Your task to perform on an android device: Go to CNN.com Image 0: 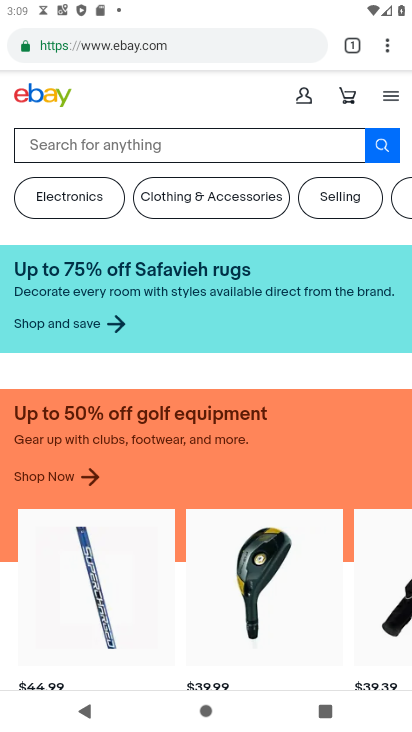
Step 0: click (240, 45)
Your task to perform on an android device: Go to CNN.com Image 1: 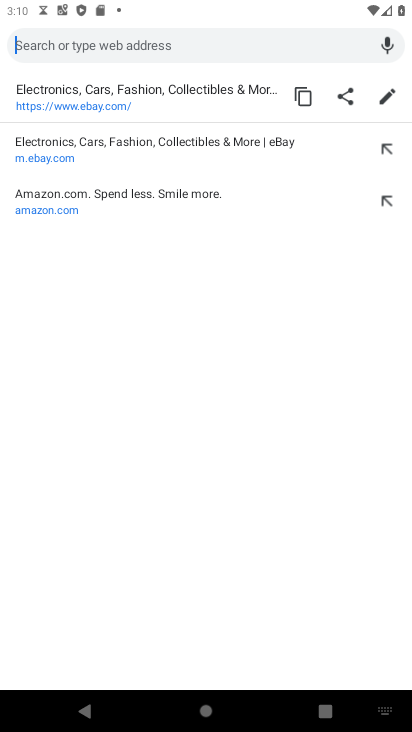
Step 1: type "CNN.com"
Your task to perform on an android device: Go to CNN.com Image 2: 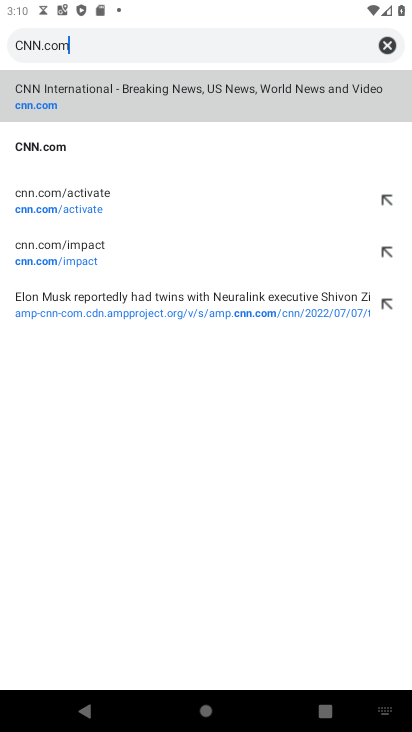
Step 2: click (30, 145)
Your task to perform on an android device: Go to CNN.com Image 3: 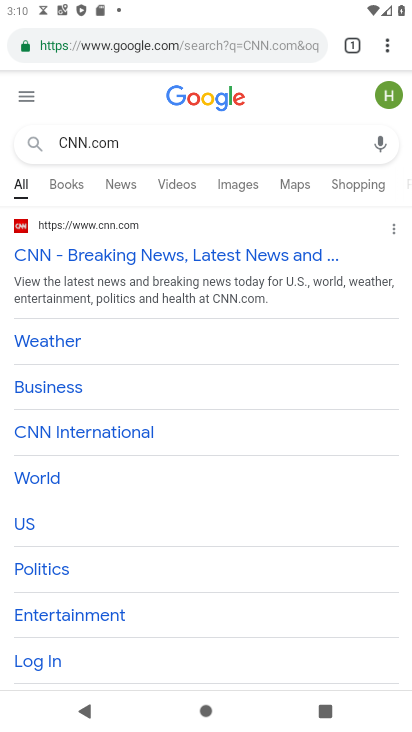
Step 3: click (124, 255)
Your task to perform on an android device: Go to CNN.com Image 4: 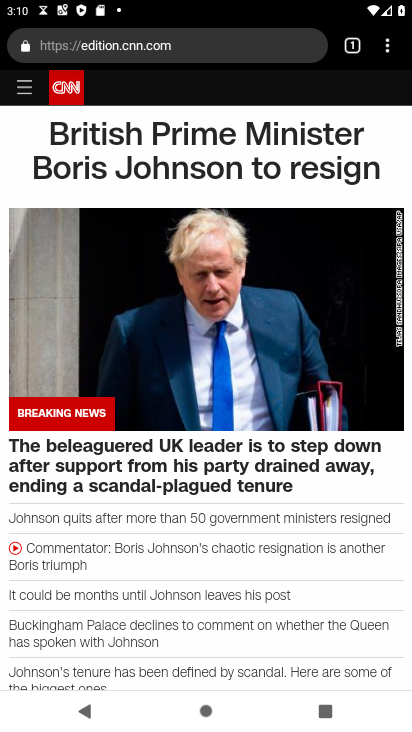
Step 4: task complete